Your task to perform on an android device: Empty the shopping cart on target. Add "razer kraken" to the cart on target, then select checkout. Image 0: 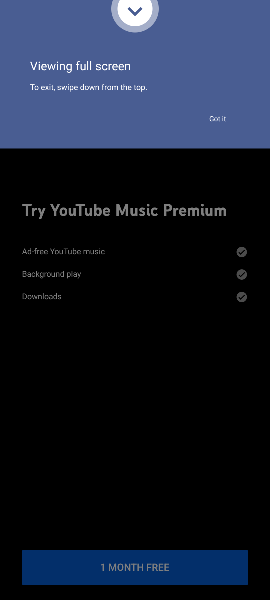
Step 0: press home button
Your task to perform on an android device: Empty the shopping cart on target. Add "razer kraken" to the cart on target, then select checkout. Image 1: 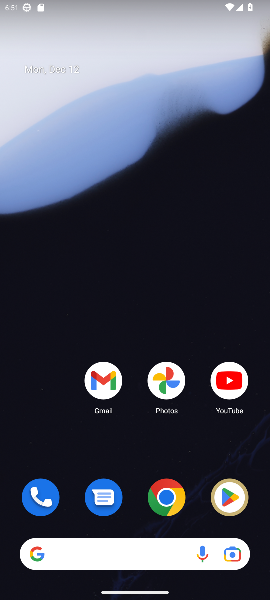
Step 1: drag from (58, 449) to (39, 81)
Your task to perform on an android device: Empty the shopping cart on target. Add "razer kraken" to the cart on target, then select checkout. Image 2: 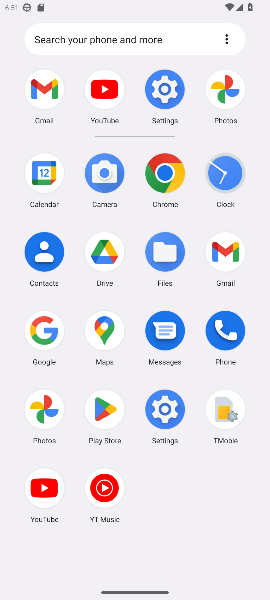
Step 2: click (41, 328)
Your task to perform on an android device: Empty the shopping cart on target. Add "razer kraken" to the cart on target, then select checkout. Image 3: 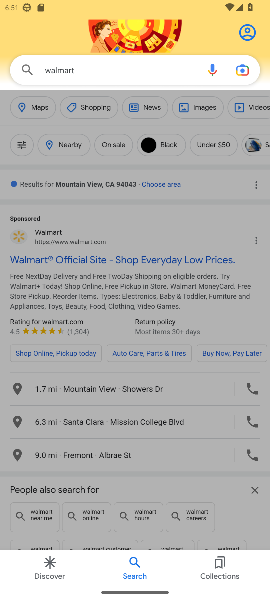
Step 3: click (98, 66)
Your task to perform on an android device: Empty the shopping cart on target. Add "razer kraken" to the cart on target, then select checkout. Image 4: 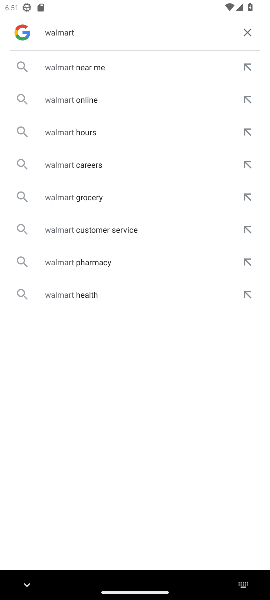
Step 4: click (247, 34)
Your task to perform on an android device: Empty the shopping cart on target. Add "razer kraken" to the cart on target, then select checkout. Image 5: 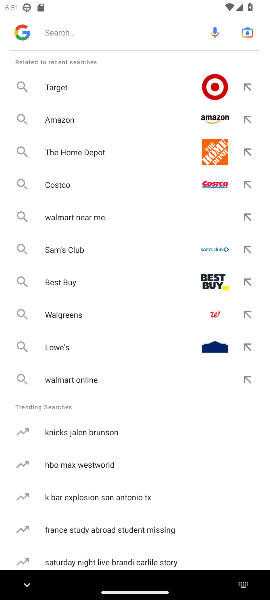
Step 5: press enter
Your task to perform on an android device: Empty the shopping cart on target. Add "razer kraken" to the cart on target, then select checkout. Image 6: 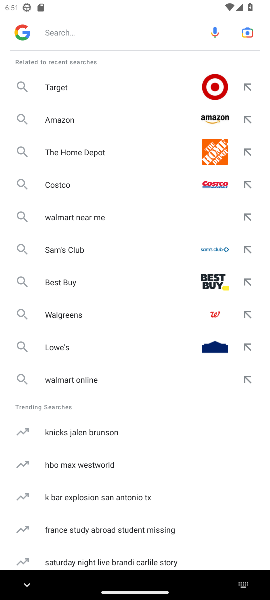
Step 6: type "target"
Your task to perform on an android device: Empty the shopping cart on target. Add "razer kraken" to the cart on target, then select checkout. Image 7: 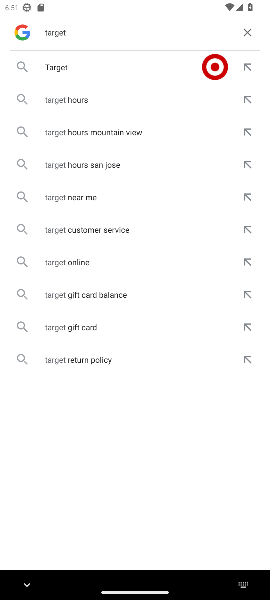
Step 7: press enter
Your task to perform on an android device: Empty the shopping cart on target. Add "razer kraken" to the cart on target, then select checkout. Image 8: 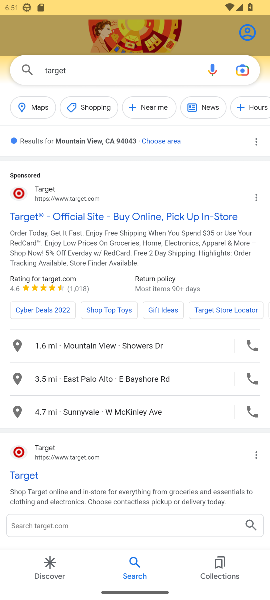
Step 8: click (76, 216)
Your task to perform on an android device: Empty the shopping cart on target. Add "razer kraken" to the cart on target, then select checkout. Image 9: 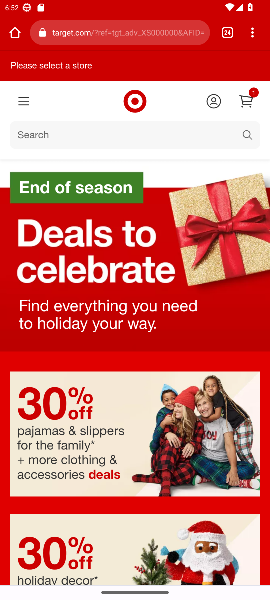
Step 9: click (244, 94)
Your task to perform on an android device: Empty the shopping cart on target. Add "razer kraken" to the cart on target, then select checkout. Image 10: 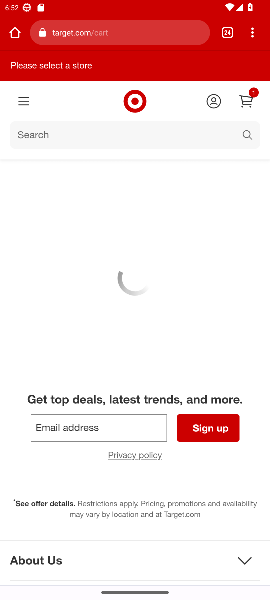
Step 10: click (54, 128)
Your task to perform on an android device: Empty the shopping cart on target. Add "razer kraken" to the cart on target, then select checkout. Image 11: 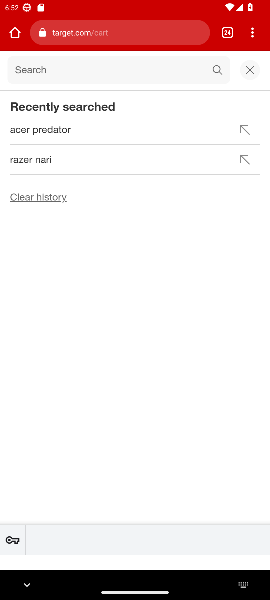
Step 11: type "razer kraken"
Your task to perform on an android device: Empty the shopping cart on target. Add "razer kraken" to the cart on target, then select checkout. Image 12: 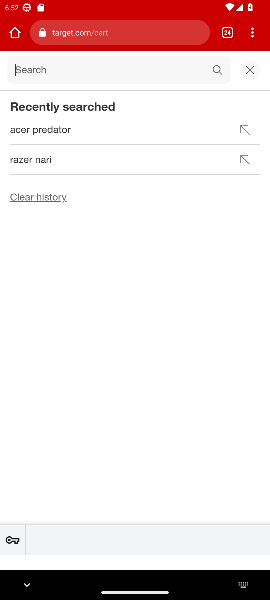
Step 12: press enter
Your task to perform on an android device: Empty the shopping cart on target. Add "razer kraken" to the cart on target, then select checkout. Image 13: 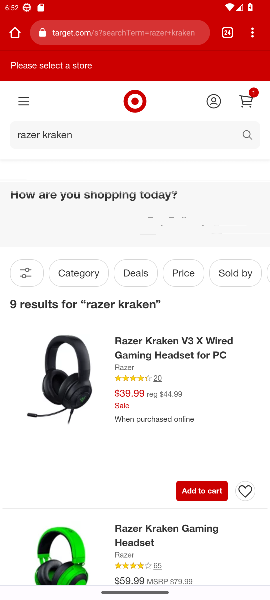
Step 13: click (186, 491)
Your task to perform on an android device: Empty the shopping cart on target. Add "razer kraken" to the cart on target, then select checkout. Image 14: 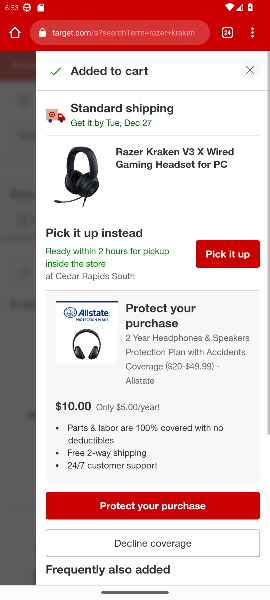
Step 14: task complete